Your task to perform on an android device: toggle location history Image 0: 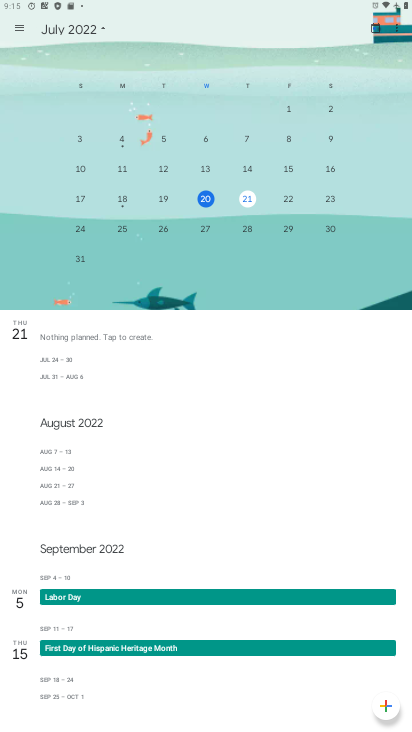
Step 0: press home button
Your task to perform on an android device: toggle location history Image 1: 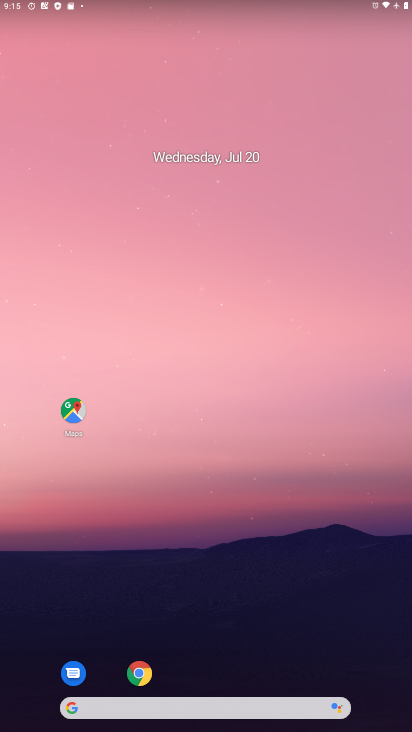
Step 1: drag from (196, 665) to (219, 62)
Your task to perform on an android device: toggle location history Image 2: 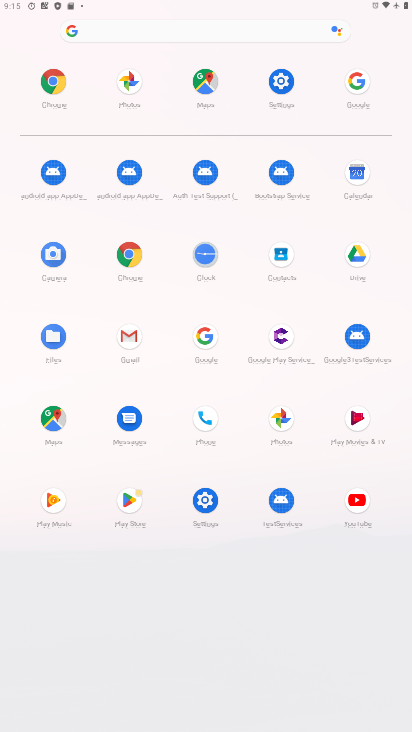
Step 2: click (280, 77)
Your task to perform on an android device: toggle location history Image 3: 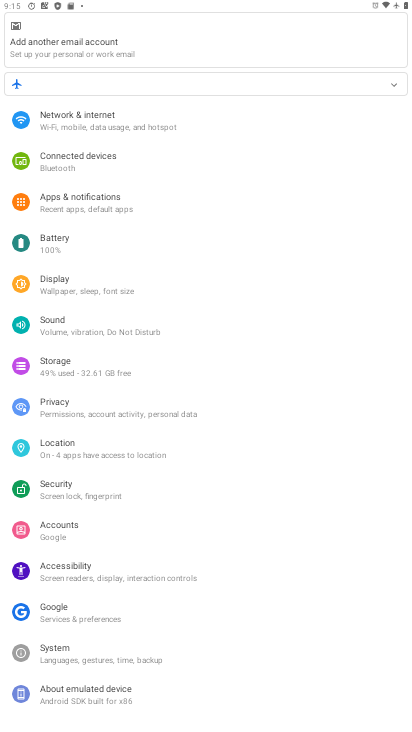
Step 3: click (84, 452)
Your task to perform on an android device: toggle location history Image 4: 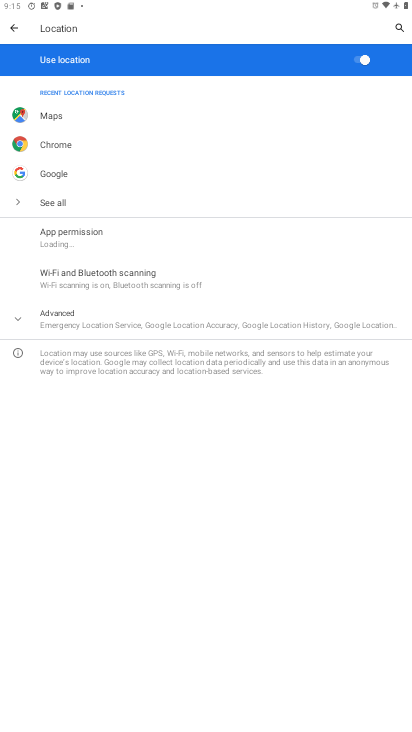
Step 4: click (90, 321)
Your task to perform on an android device: toggle location history Image 5: 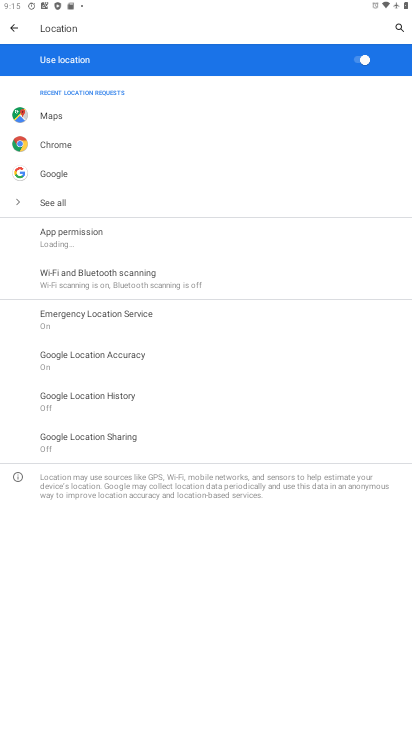
Step 5: click (127, 394)
Your task to perform on an android device: toggle location history Image 6: 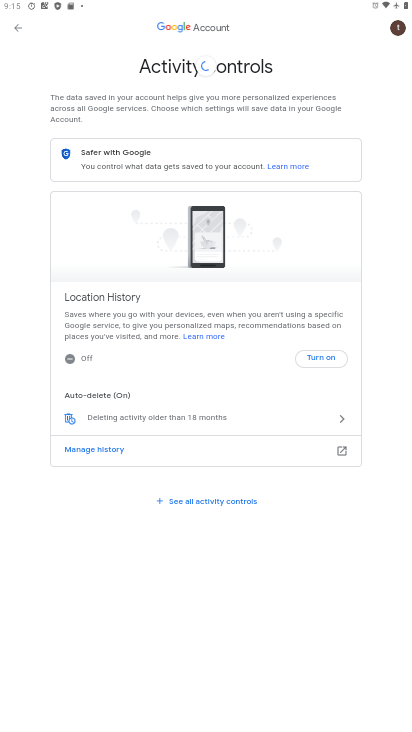
Step 6: click (325, 360)
Your task to perform on an android device: toggle location history Image 7: 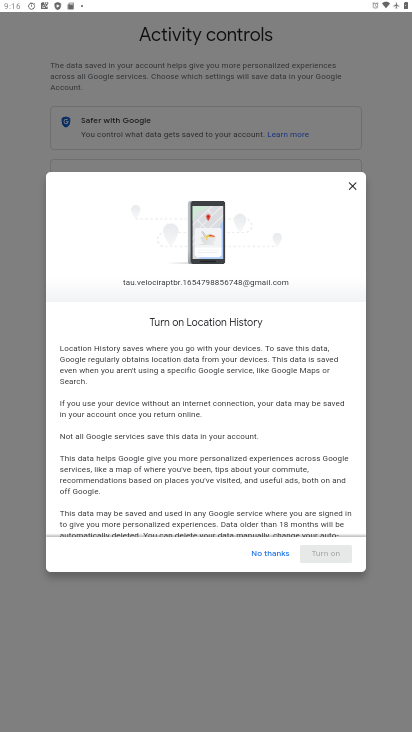
Step 7: drag from (286, 500) to (287, 182)
Your task to perform on an android device: toggle location history Image 8: 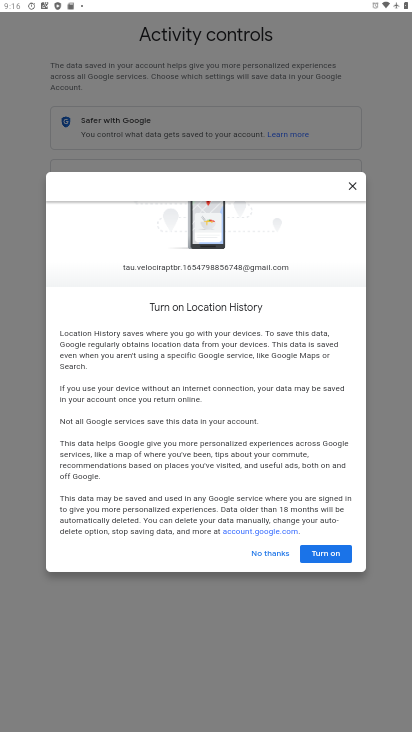
Step 8: click (321, 559)
Your task to perform on an android device: toggle location history Image 9: 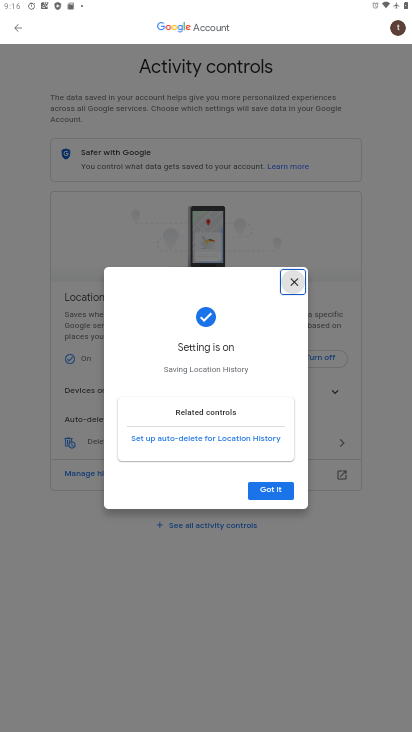
Step 9: click (282, 486)
Your task to perform on an android device: toggle location history Image 10: 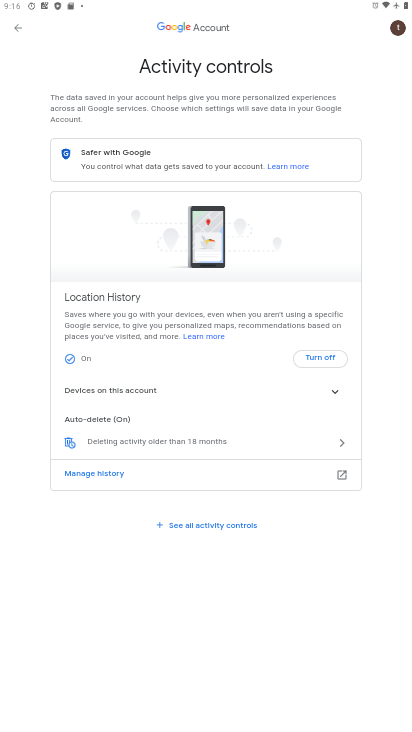
Step 10: task complete